Your task to perform on an android device: Open calendar and show me the second week of next month Image 0: 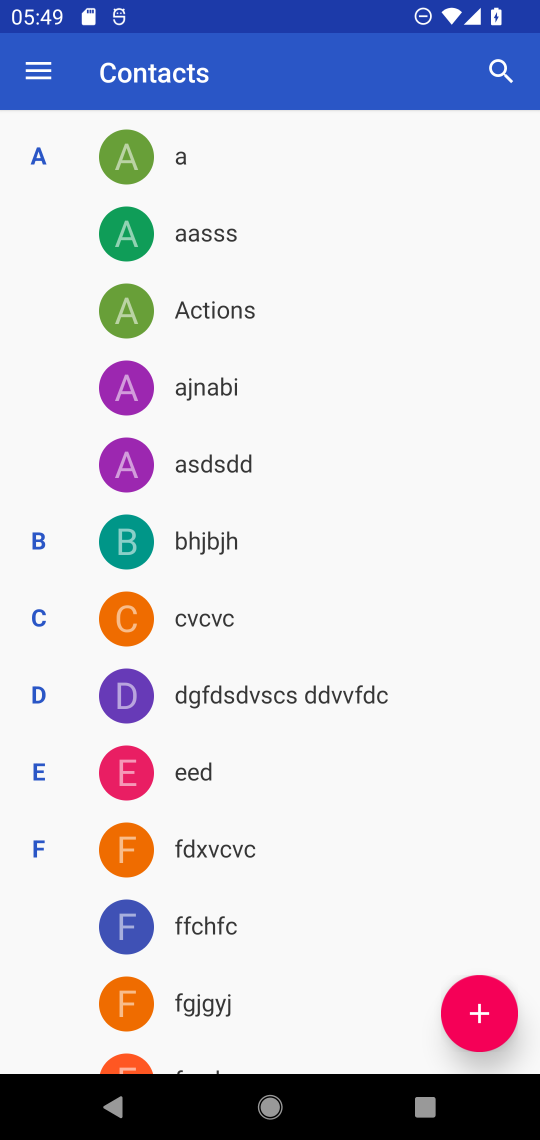
Step 0: press home button
Your task to perform on an android device: Open calendar and show me the second week of next month Image 1: 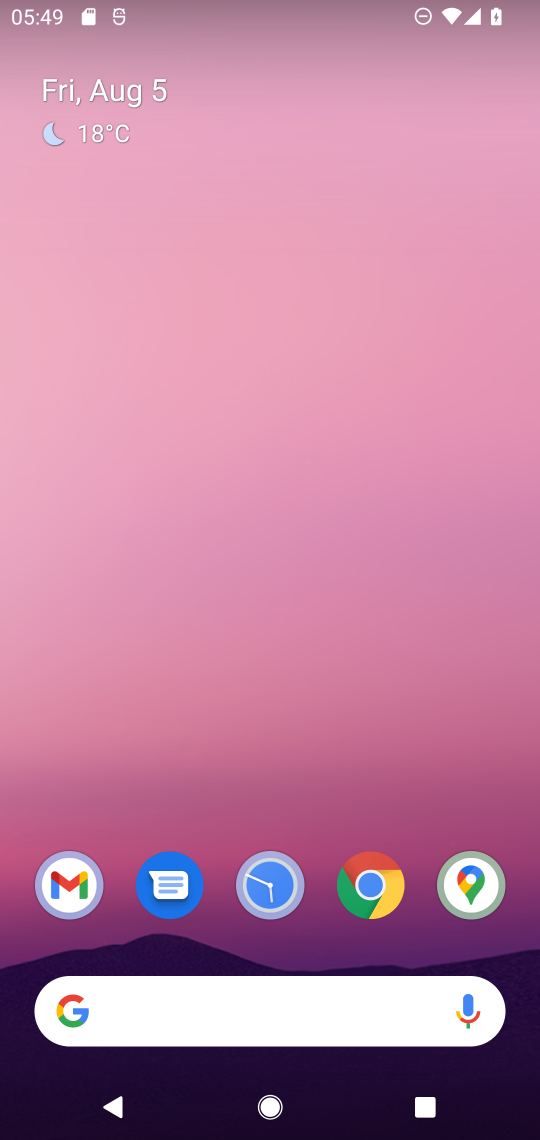
Step 1: drag from (305, 761) to (305, 202)
Your task to perform on an android device: Open calendar and show me the second week of next month Image 2: 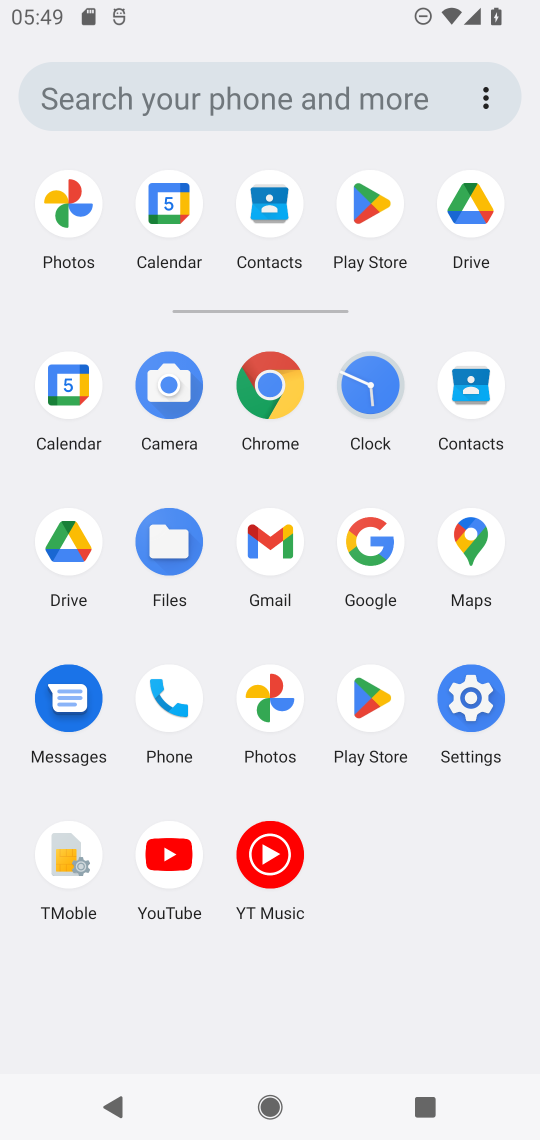
Step 2: click (68, 394)
Your task to perform on an android device: Open calendar and show me the second week of next month Image 3: 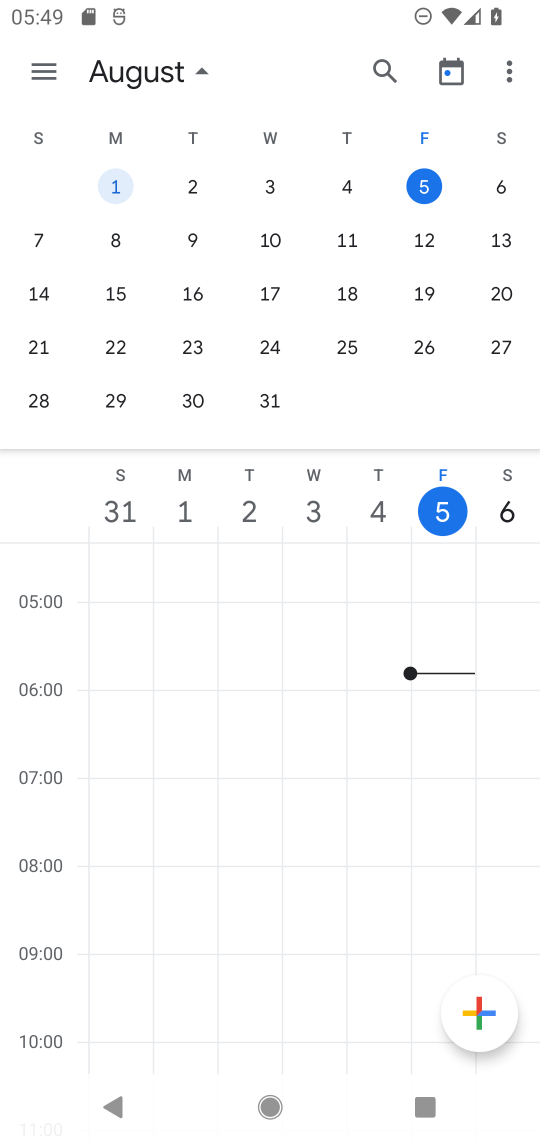
Step 3: drag from (432, 286) to (92, 247)
Your task to perform on an android device: Open calendar and show me the second week of next month Image 4: 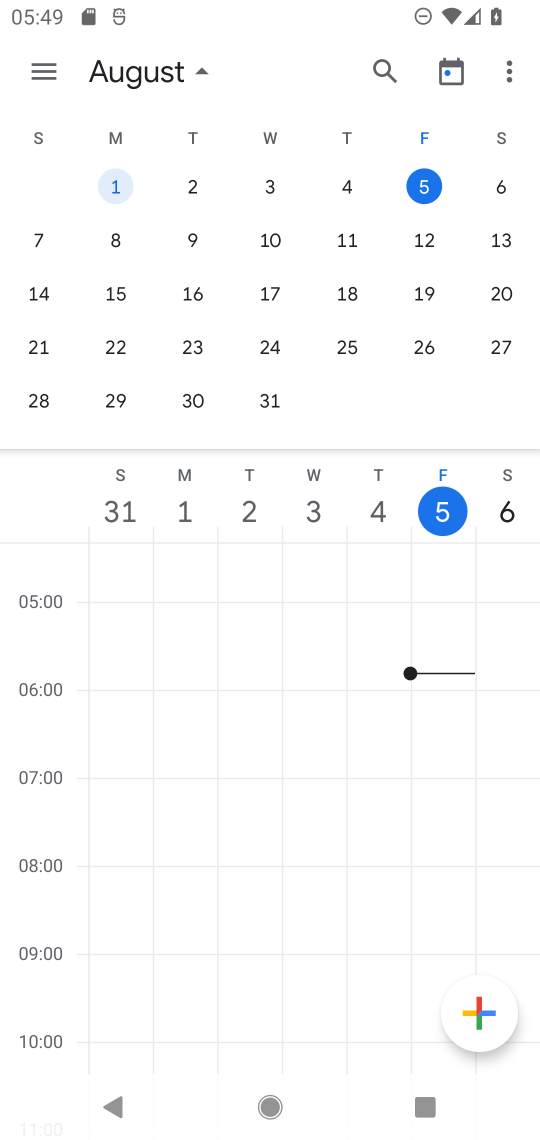
Step 4: drag from (493, 239) to (79, 236)
Your task to perform on an android device: Open calendar and show me the second week of next month Image 5: 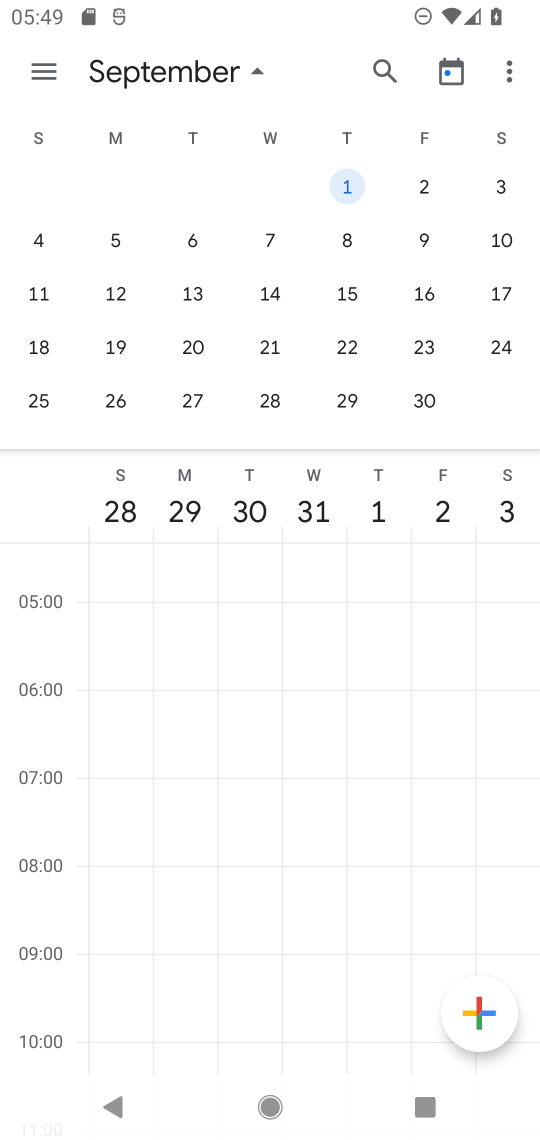
Step 5: click (43, 77)
Your task to perform on an android device: Open calendar and show me the second week of next month Image 6: 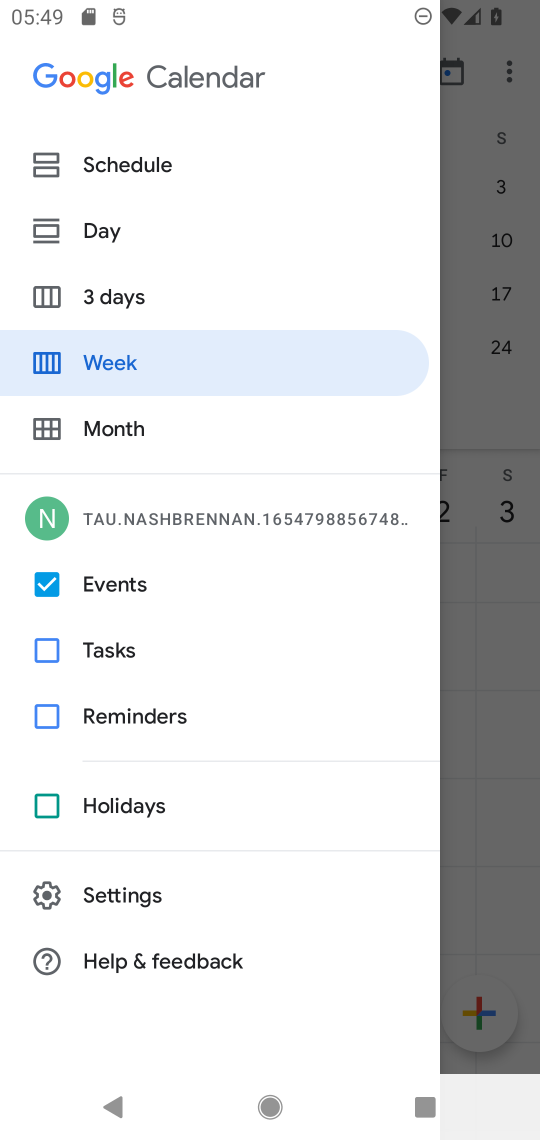
Step 6: click (470, 250)
Your task to perform on an android device: Open calendar and show me the second week of next month Image 7: 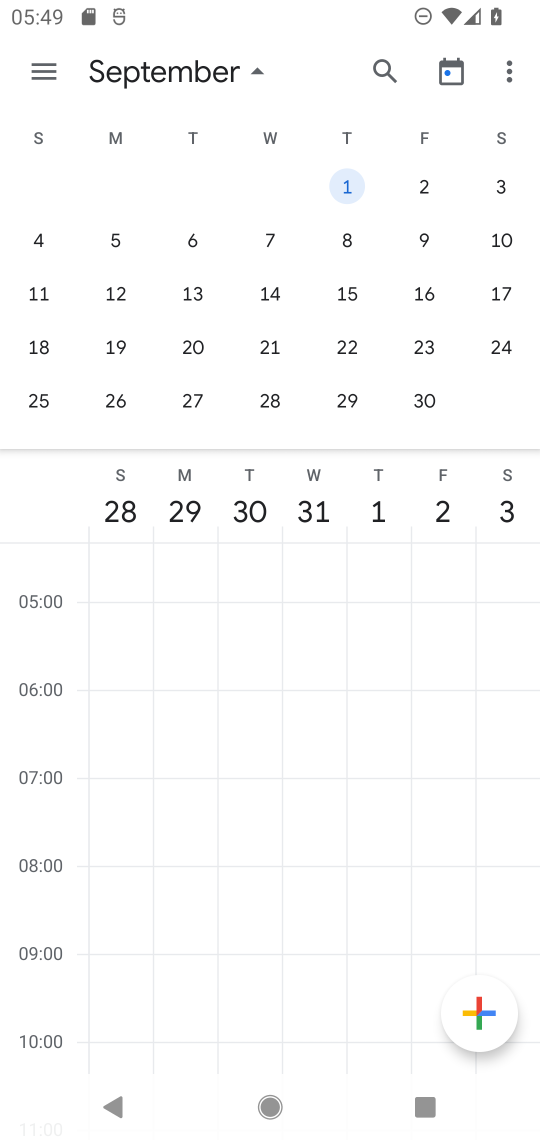
Step 7: click (109, 226)
Your task to perform on an android device: Open calendar and show me the second week of next month Image 8: 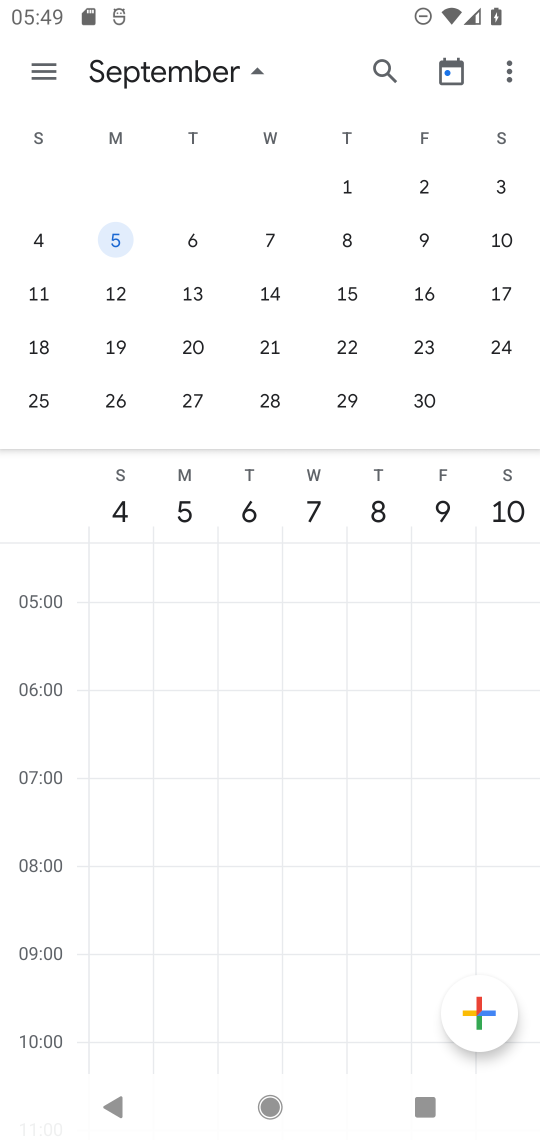
Step 8: click (42, 72)
Your task to perform on an android device: Open calendar and show me the second week of next month Image 9: 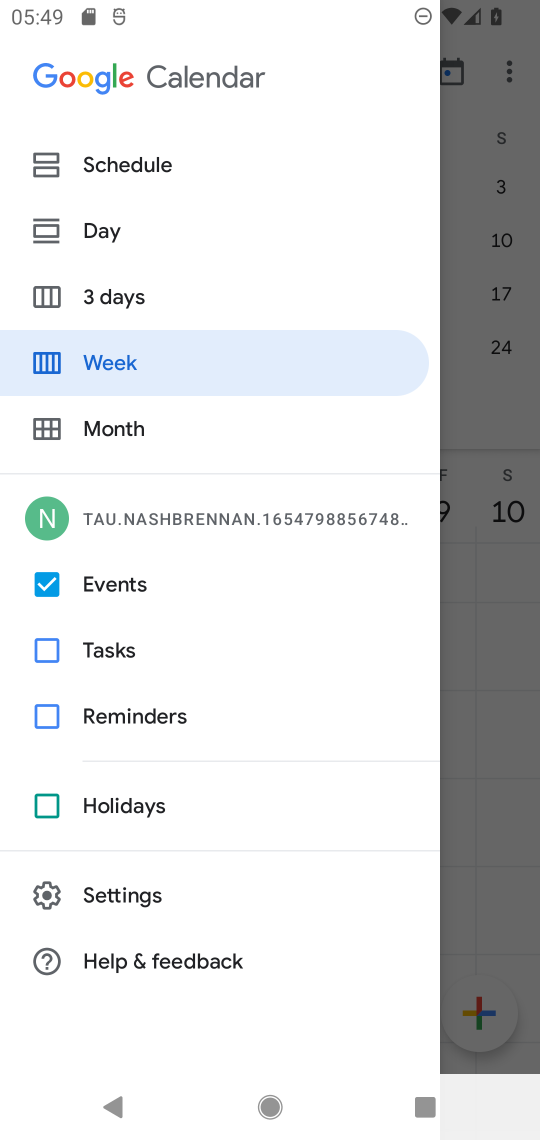
Step 9: click (134, 358)
Your task to perform on an android device: Open calendar and show me the second week of next month Image 10: 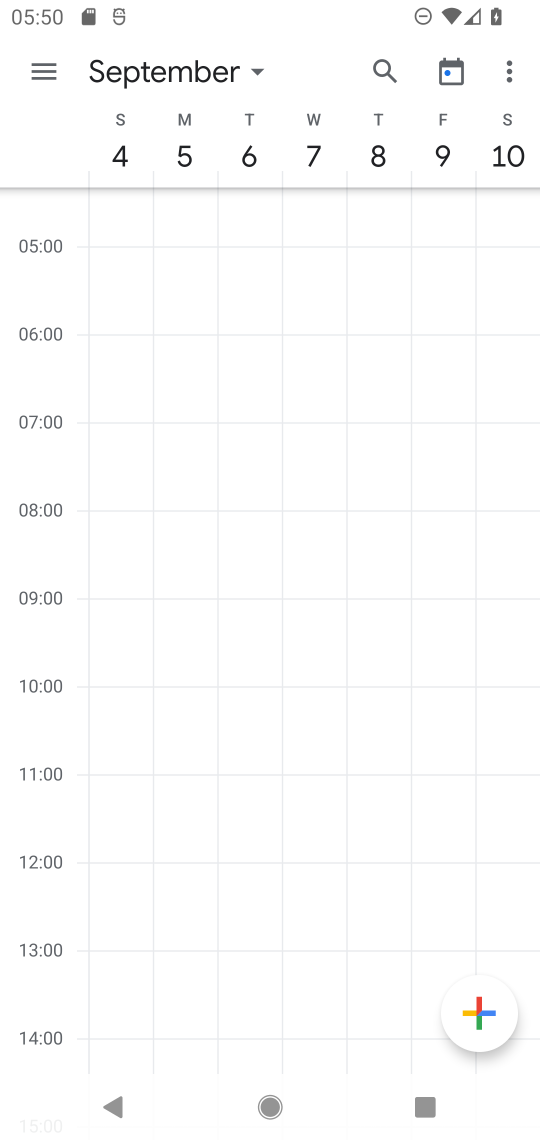
Step 10: task complete